Your task to perform on an android device: open app "Google Sheets" Image 0: 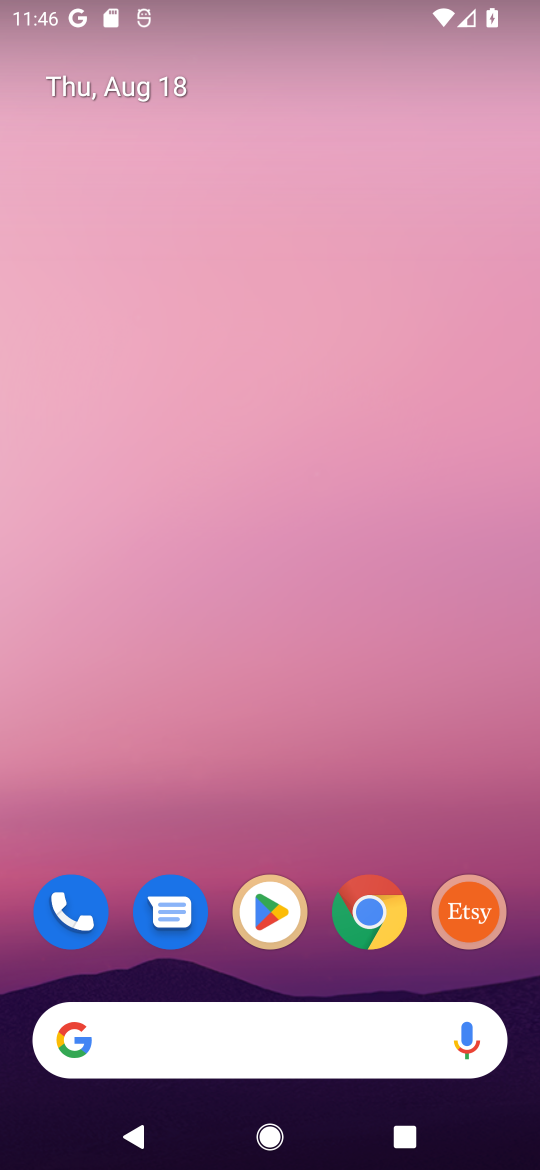
Step 0: click (268, 909)
Your task to perform on an android device: open app "Google Sheets" Image 1: 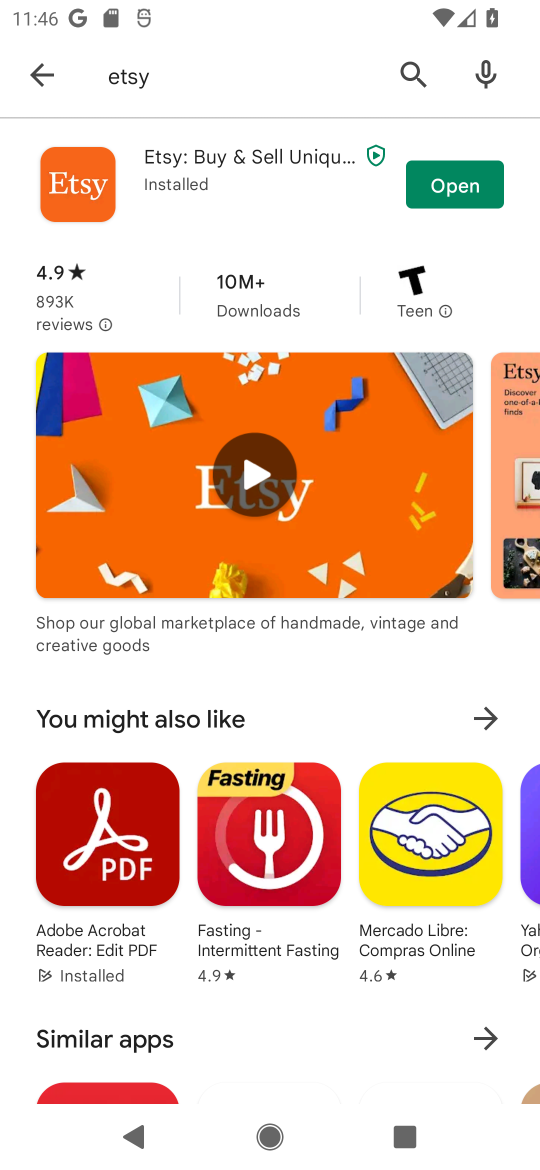
Step 1: click (402, 76)
Your task to perform on an android device: open app "Google Sheets" Image 2: 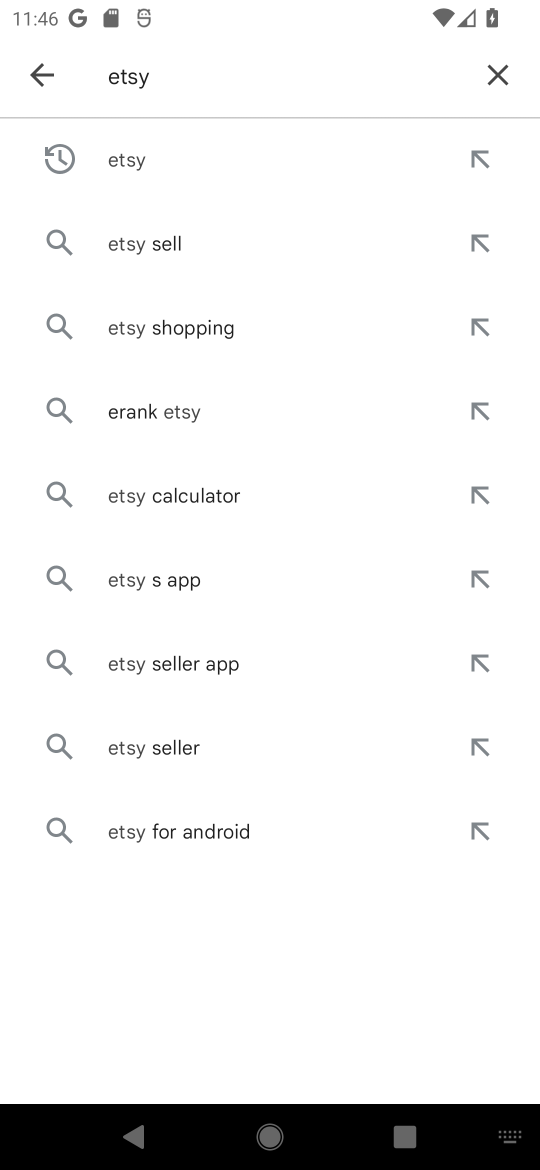
Step 2: click (502, 61)
Your task to perform on an android device: open app "Google Sheets" Image 3: 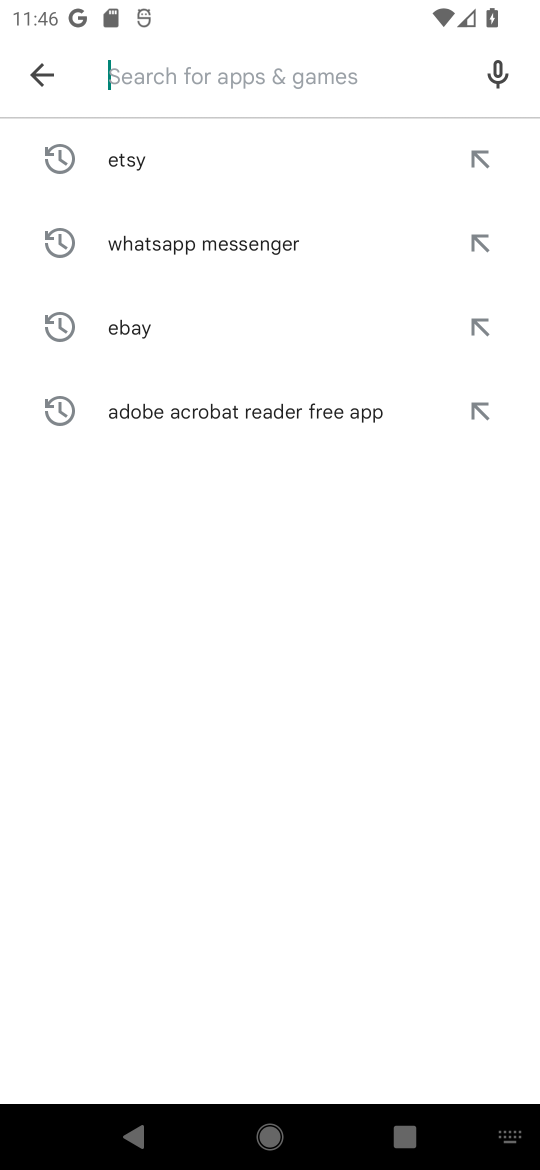
Step 3: click (183, 72)
Your task to perform on an android device: open app "Google Sheets" Image 4: 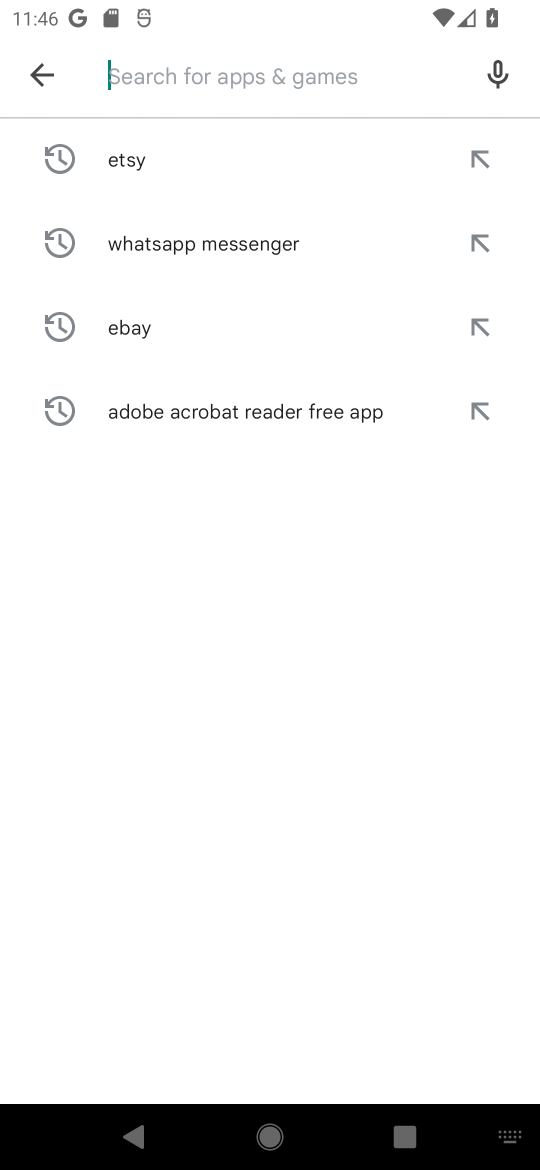
Step 4: type "Google Sheets"
Your task to perform on an android device: open app "Google Sheets" Image 5: 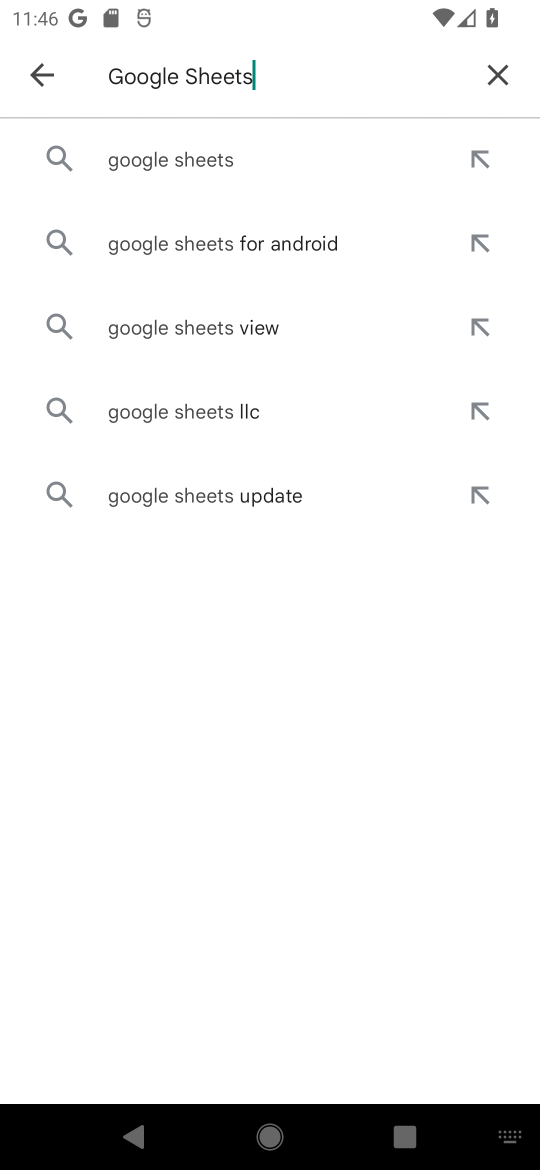
Step 5: click (181, 156)
Your task to perform on an android device: open app "Google Sheets" Image 6: 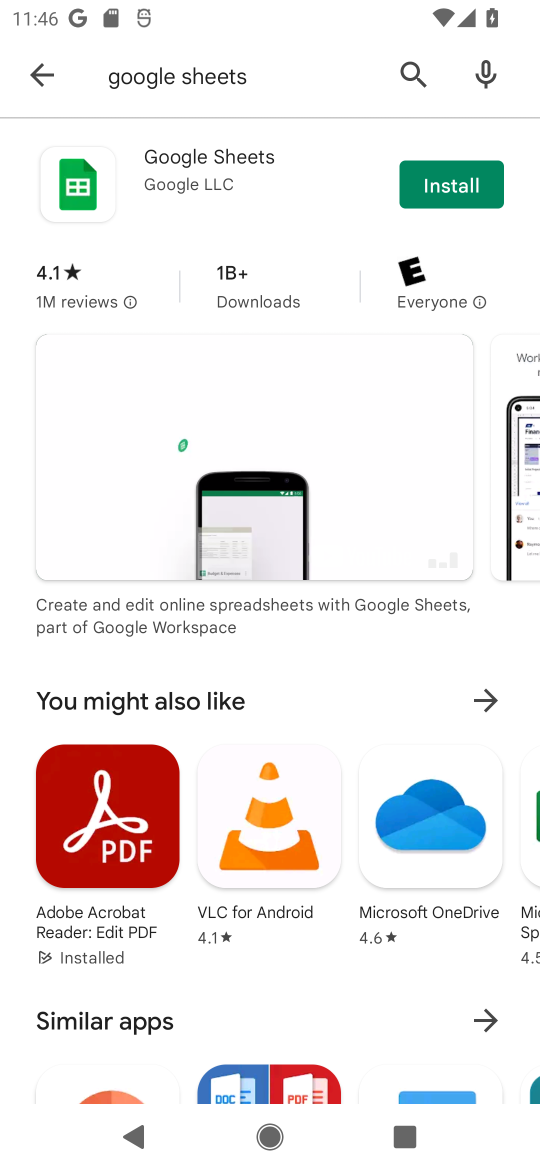
Step 6: task complete